Your task to perform on an android device: all mails in gmail Image 0: 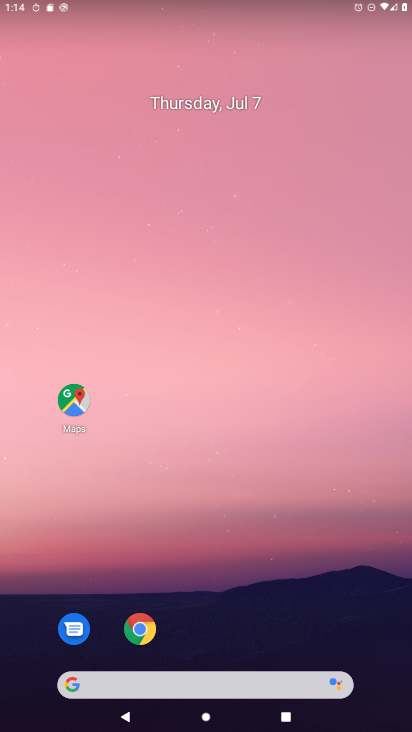
Step 0: drag from (223, 610) to (229, 55)
Your task to perform on an android device: all mails in gmail Image 1: 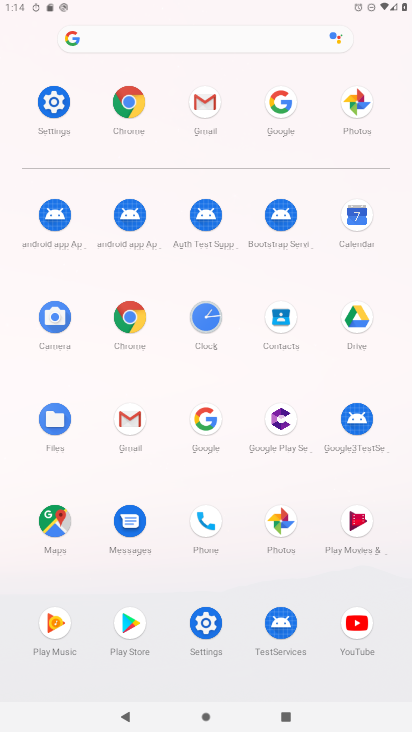
Step 1: click (211, 108)
Your task to perform on an android device: all mails in gmail Image 2: 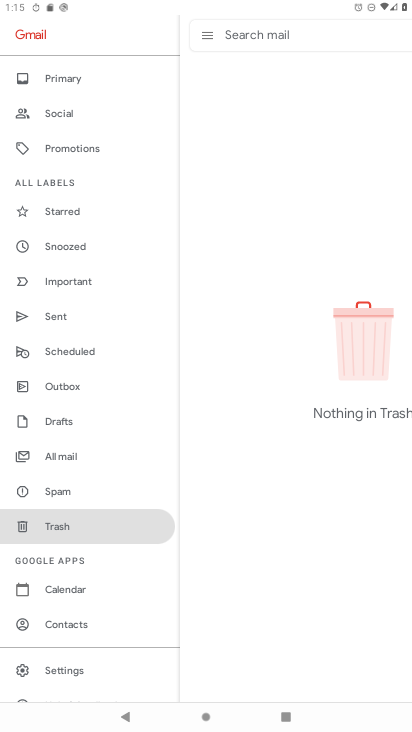
Step 2: click (80, 452)
Your task to perform on an android device: all mails in gmail Image 3: 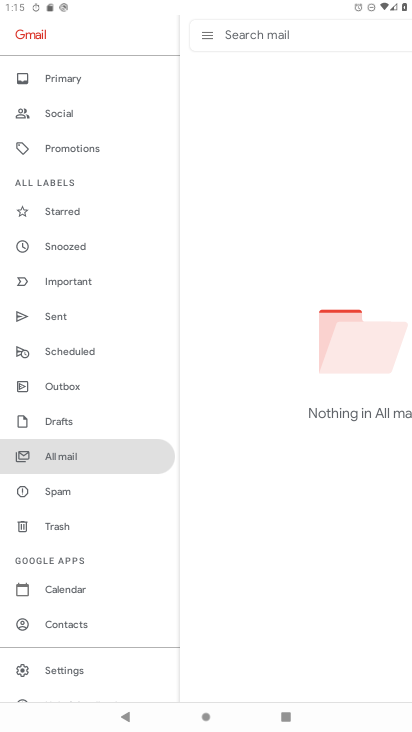
Step 3: task complete